Your task to perform on an android device: turn off sleep mode Image 0: 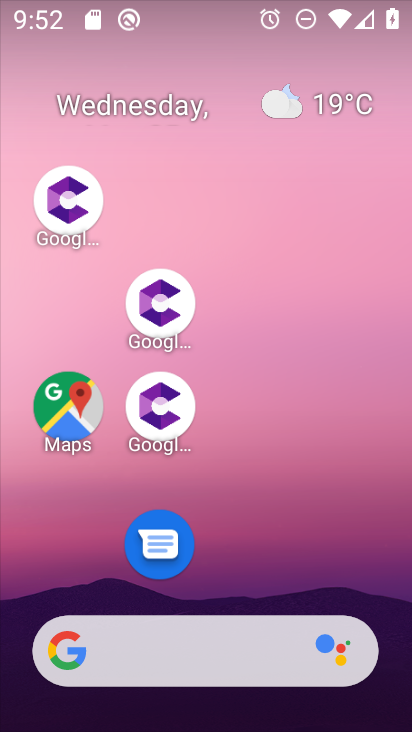
Step 0: drag from (327, 522) to (232, 17)
Your task to perform on an android device: turn off sleep mode Image 1: 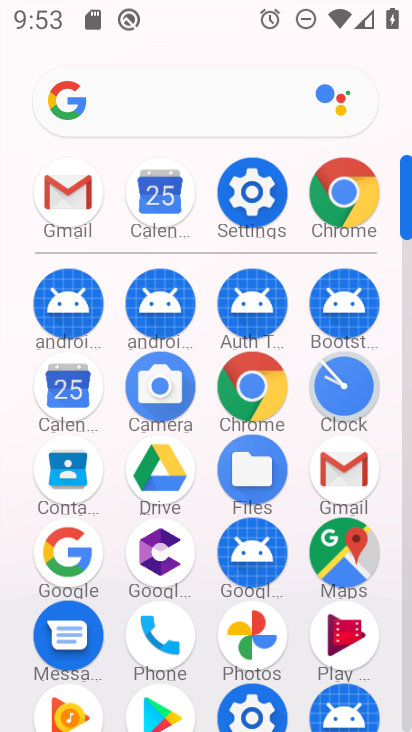
Step 1: click (253, 199)
Your task to perform on an android device: turn off sleep mode Image 2: 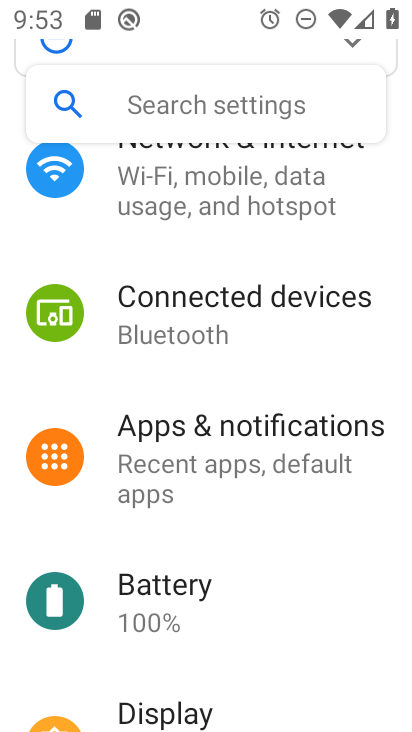
Step 2: drag from (257, 322) to (242, 722)
Your task to perform on an android device: turn off sleep mode Image 3: 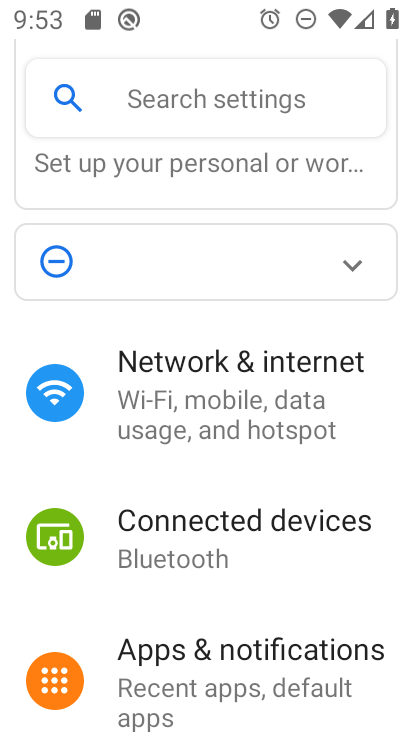
Step 3: click (218, 391)
Your task to perform on an android device: turn off sleep mode Image 4: 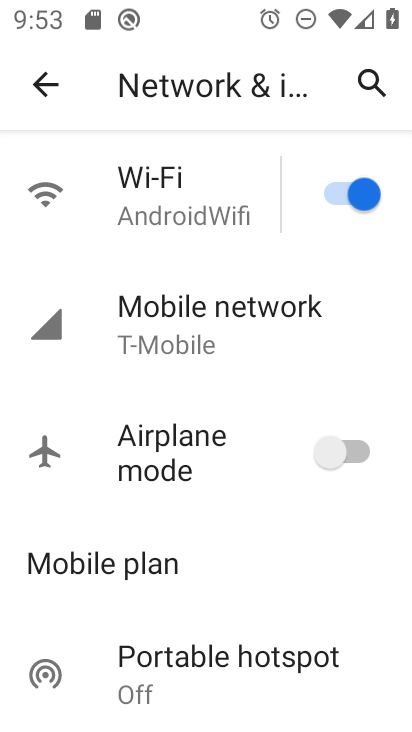
Step 4: task complete